Your task to perform on an android device: Open privacy settings Image 0: 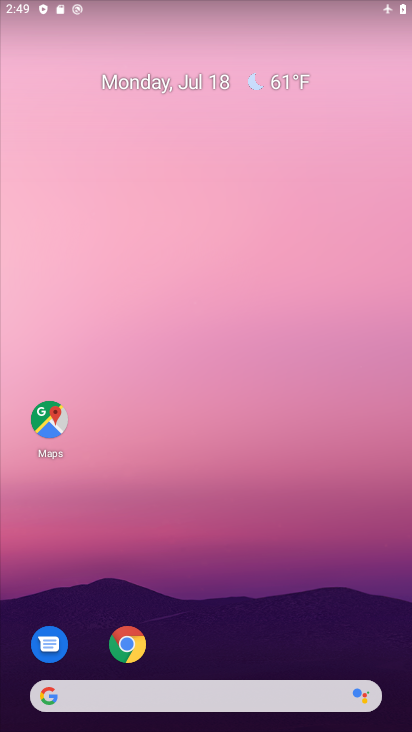
Step 0: drag from (307, 621) to (236, 3)
Your task to perform on an android device: Open privacy settings Image 1: 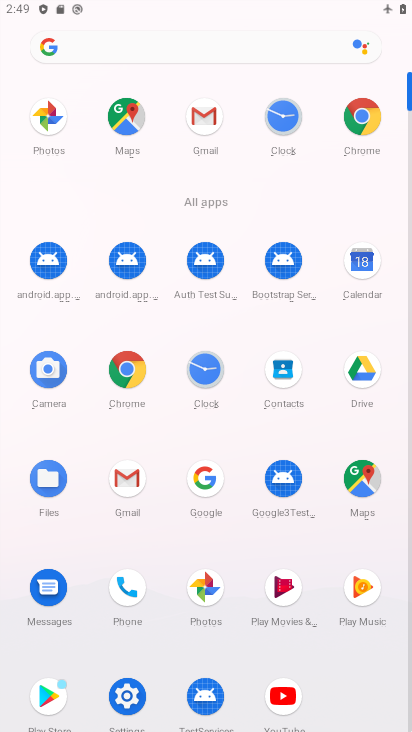
Step 1: click (121, 706)
Your task to perform on an android device: Open privacy settings Image 2: 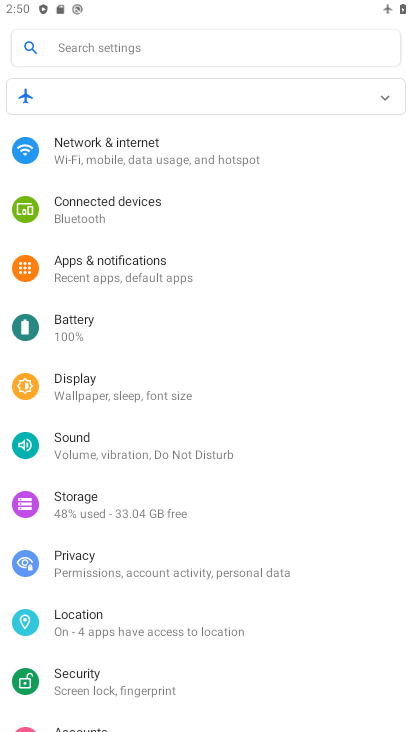
Step 2: click (111, 552)
Your task to perform on an android device: Open privacy settings Image 3: 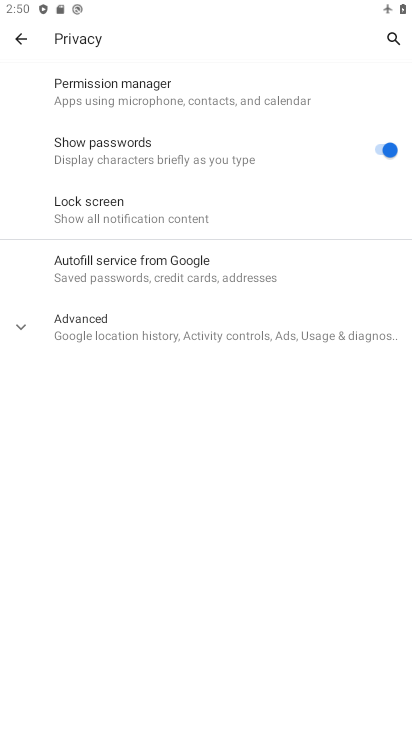
Step 3: task complete